Your task to perform on an android device: turn on priority inbox in the gmail app Image 0: 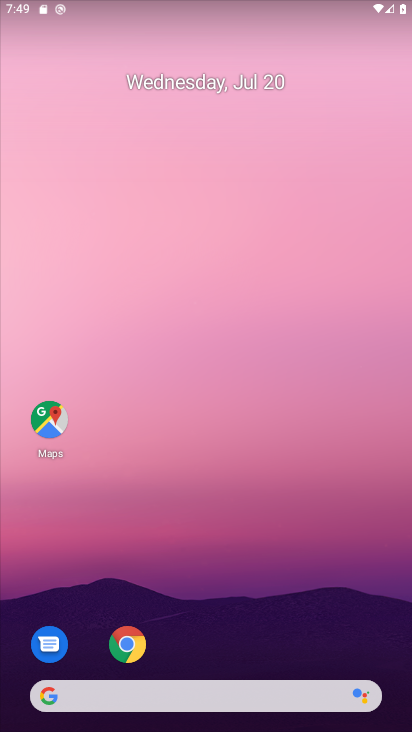
Step 0: drag from (194, 679) to (186, 387)
Your task to perform on an android device: turn on priority inbox in the gmail app Image 1: 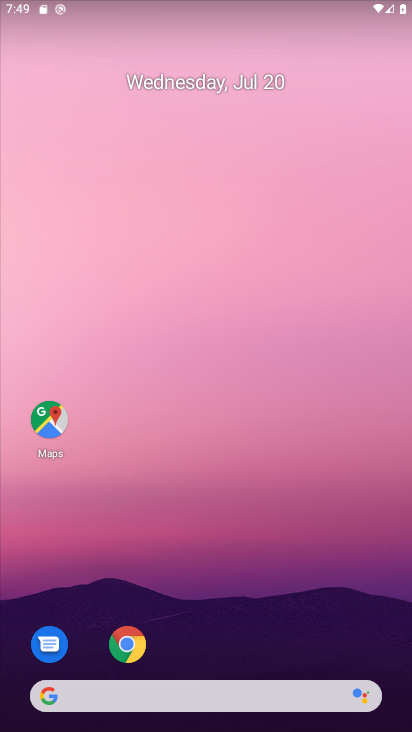
Step 1: drag from (115, 676) to (106, 388)
Your task to perform on an android device: turn on priority inbox in the gmail app Image 2: 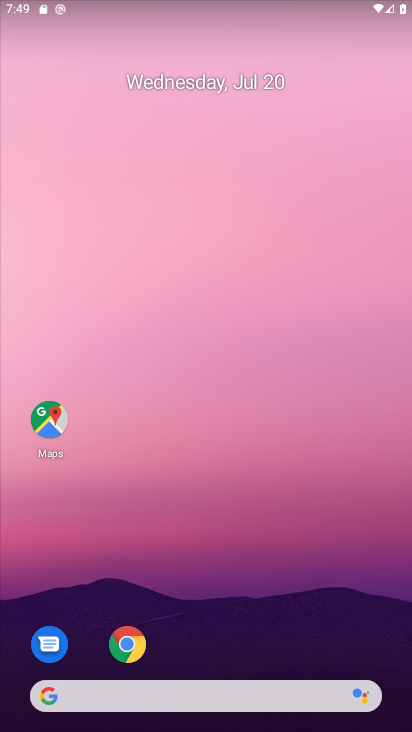
Step 2: drag from (239, 695) to (270, 265)
Your task to perform on an android device: turn on priority inbox in the gmail app Image 3: 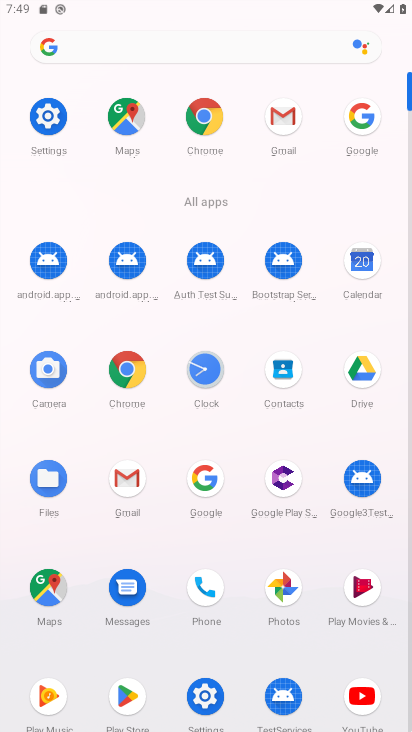
Step 3: click (128, 490)
Your task to perform on an android device: turn on priority inbox in the gmail app Image 4: 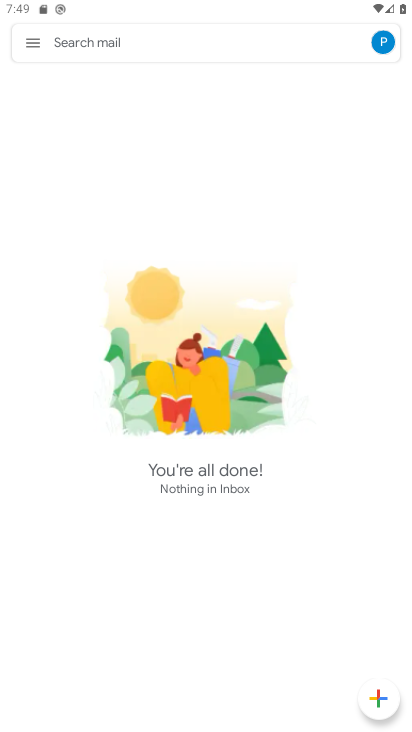
Step 4: click (30, 46)
Your task to perform on an android device: turn on priority inbox in the gmail app Image 5: 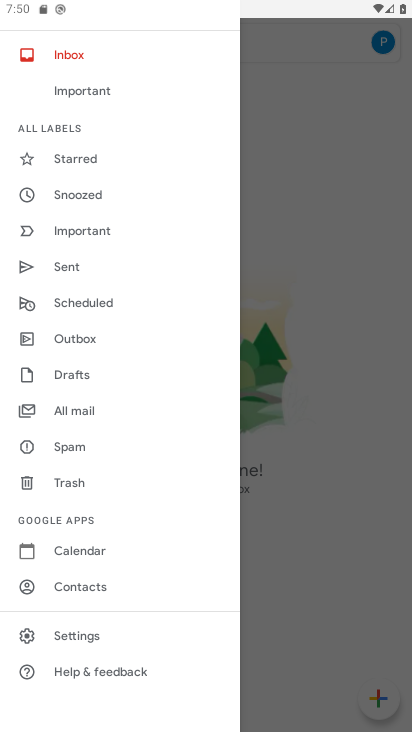
Step 5: click (62, 638)
Your task to perform on an android device: turn on priority inbox in the gmail app Image 6: 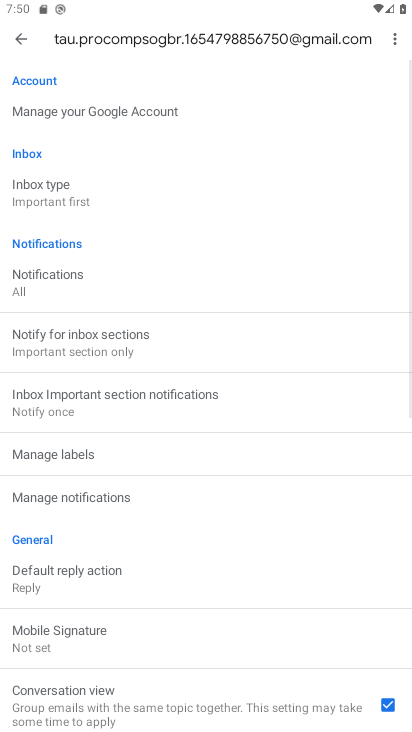
Step 6: click (39, 202)
Your task to perform on an android device: turn on priority inbox in the gmail app Image 7: 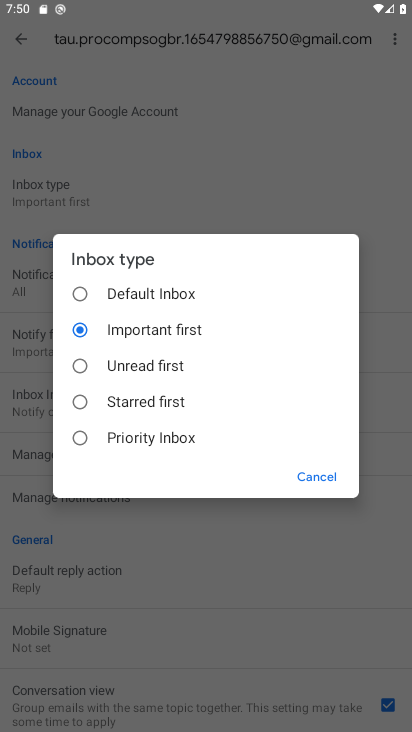
Step 7: click (131, 433)
Your task to perform on an android device: turn on priority inbox in the gmail app Image 8: 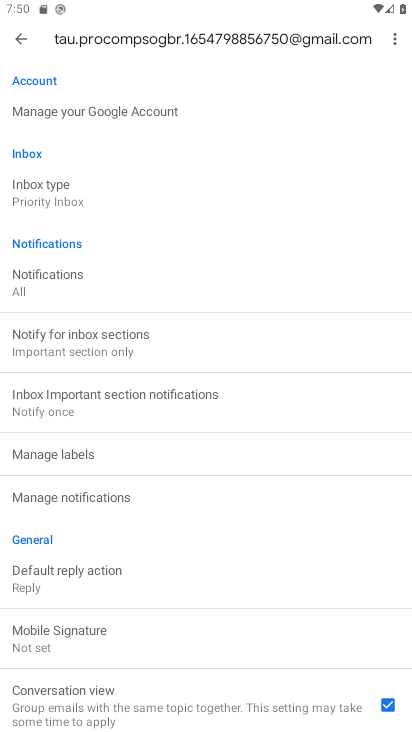
Step 8: task complete